Your task to perform on an android device: What's the weather going to be this weekend? Image 0: 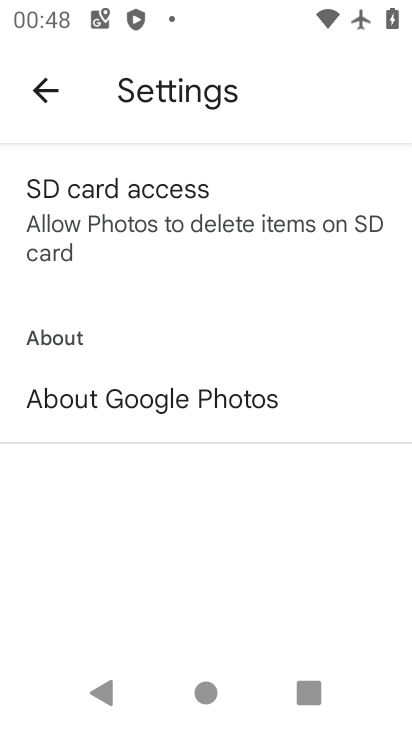
Step 0: drag from (147, 538) to (213, 259)
Your task to perform on an android device: What's the weather going to be this weekend? Image 1: 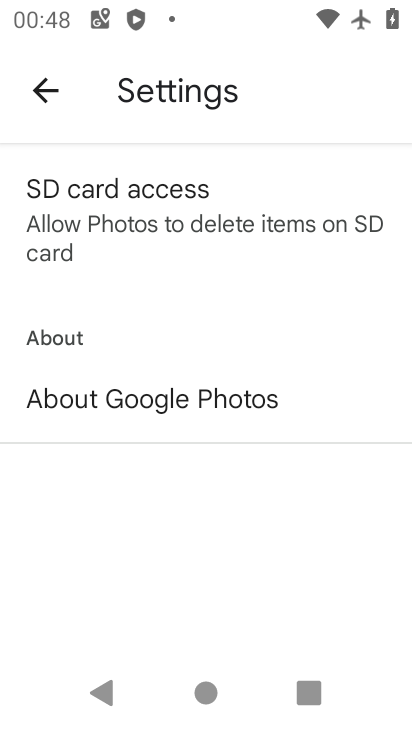
Step 1: press home button
Your task to perform on an android device: What's the weather going to be this weekend? Image 2: 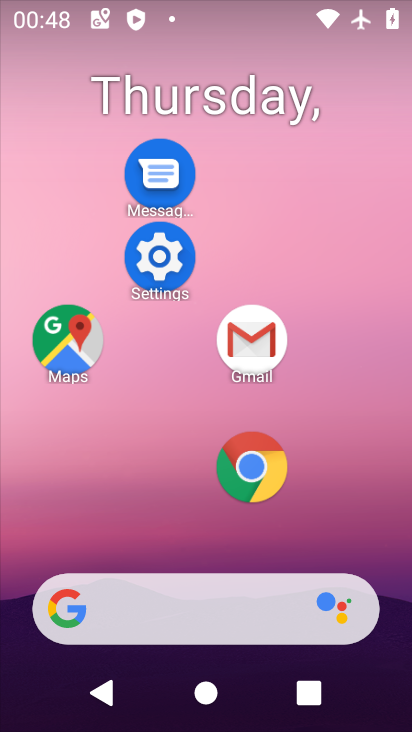
Step 2: drag from (152, 537) to (173, 497)
Your task to perform on an android device: What's the weather going to be this weekend? Image 3: 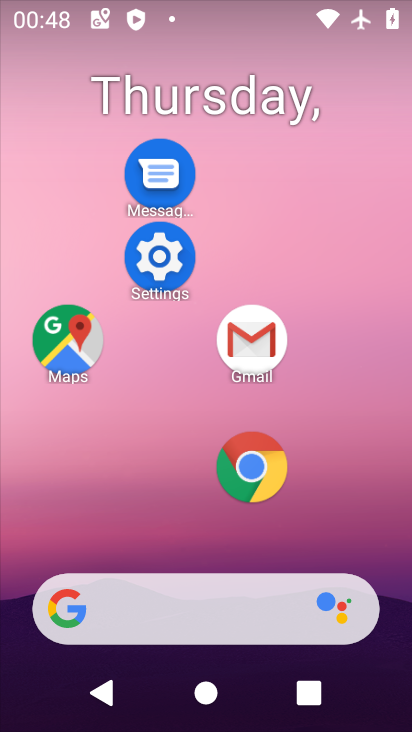
Step 3: drag from (186, 507) to (218, 184)
Your task to perform on an android device: What's the weather going to be this weekend? Image 4: 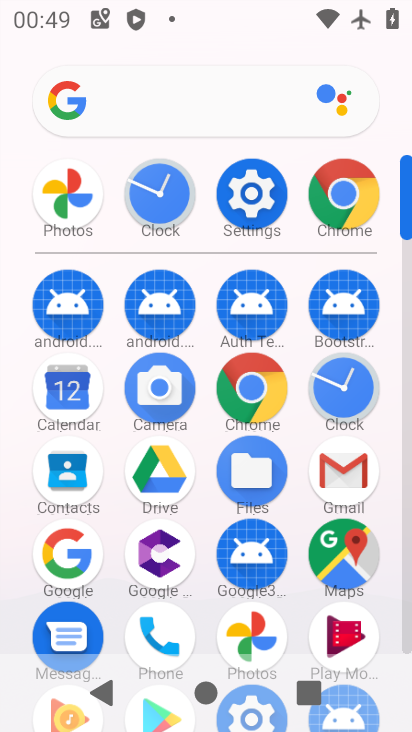
Step 4: click (202, 117)
Your task to perform on an android device: What's the weather going to be this weekend? Image 5: 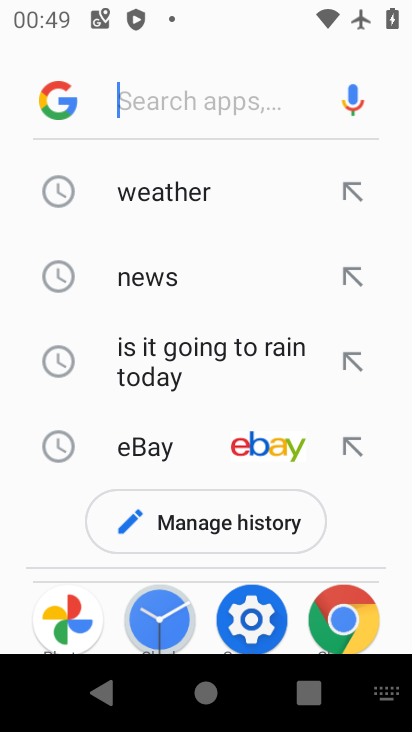
Step 5: type "weather going to be this weekend"
Your task to perform on an android device: What's the weather going to be this weekend? Image 6: 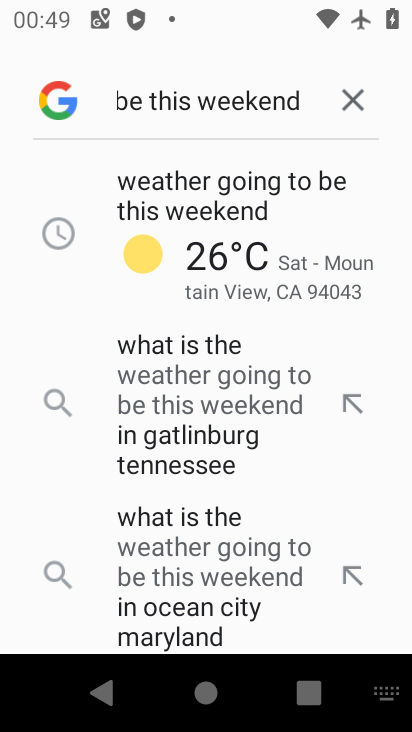
Step 6: click (257, 210)
Your task to perform on an android device: What's the weather going to be this weekend? Image 7: 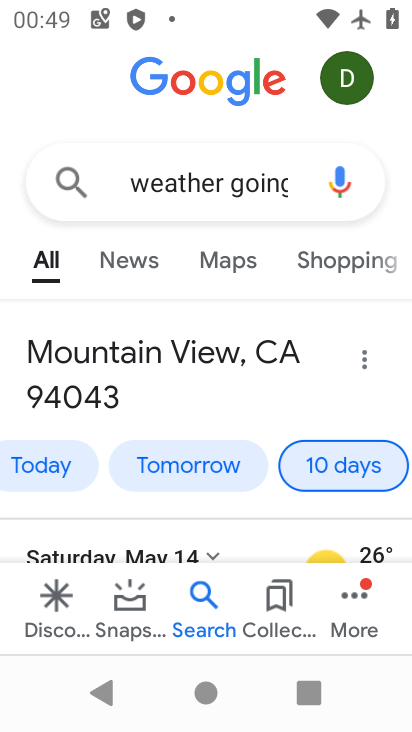
Step 7: task complete